Your task to perform on an android device: toggle translation in the chrome app Image 0: 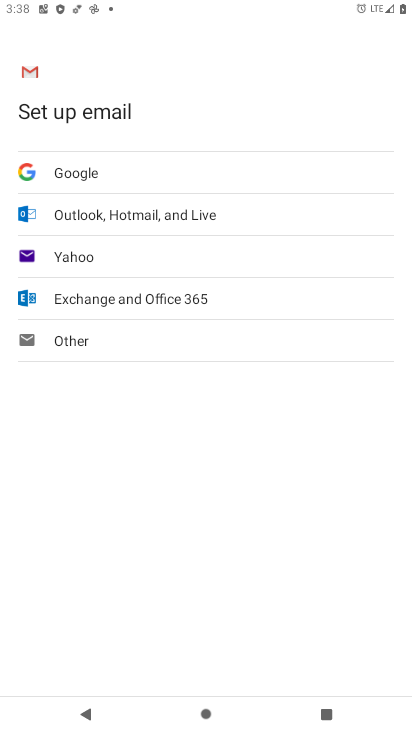
Step 0: press home button
Your task to perform on an android device: toggle translation in the chrome app Image 1: 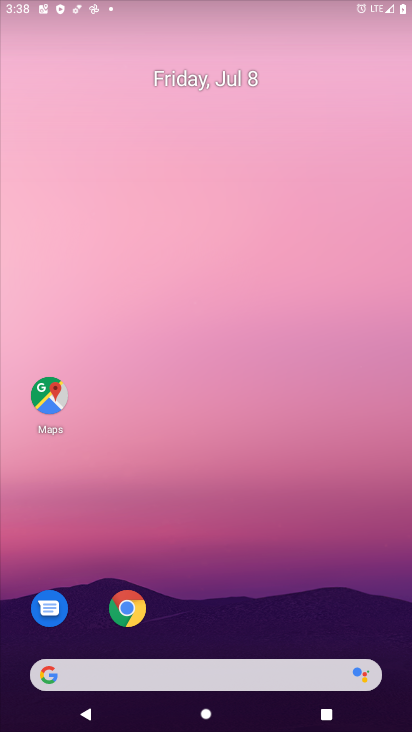
Step 1: drag from (315, 683) to (407, 607)
Your task to perform on an android device: toggle translation in the chrome app Image 2: 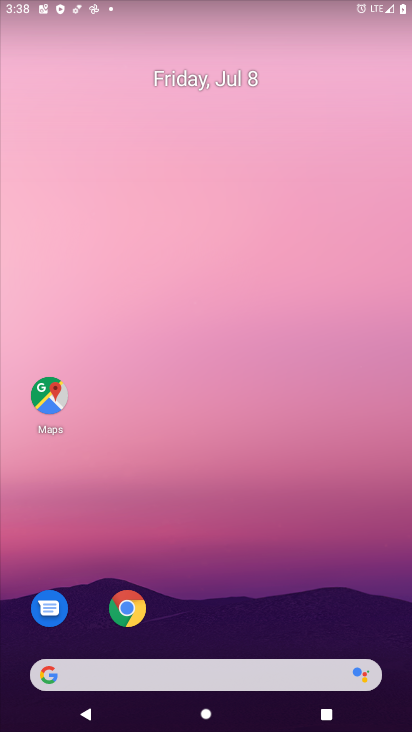
Step 2: drag from (225, 663) to (252, 40)
Your task to perform on an android device: toggle translation in the chrome app Image 3: 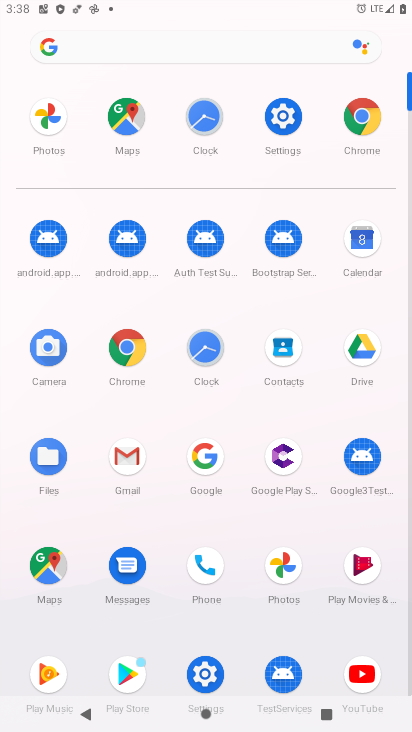
Step 3: click (138, 344)
Your task to perform on an android device: toggle translation in the chrome app Image 4: 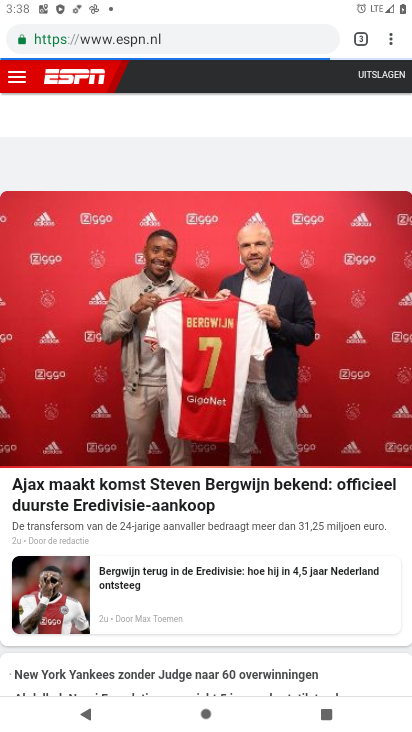
Step 4: drag from (393, 33) to (272, 430)
Your task to perform on an android device: toggle translation in the chrome app Image 5: 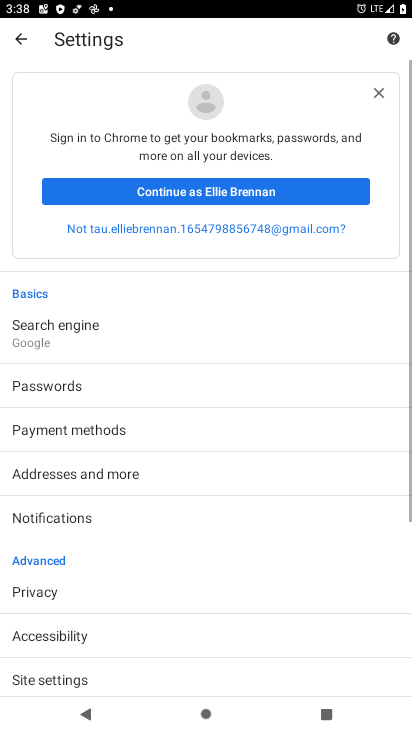
Step 5: drag from (129, 654) to (159, 213)
Your task to perform on an android device: toggle translation in the chrome app Image 6: 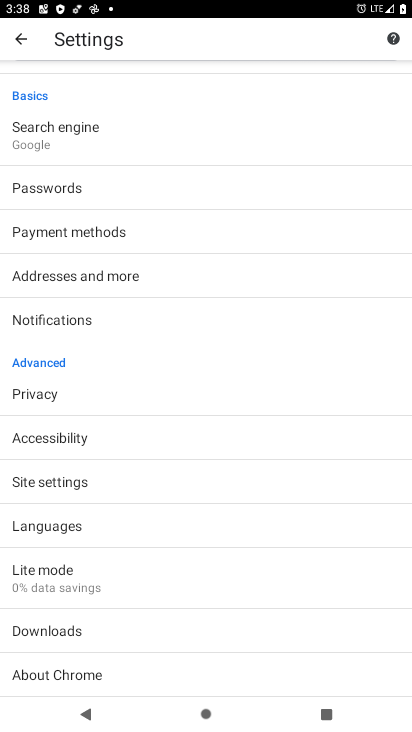
Step 6: click (72, 531)
Your task to perform on an android device: toggle translation in the chrome app Image 7: 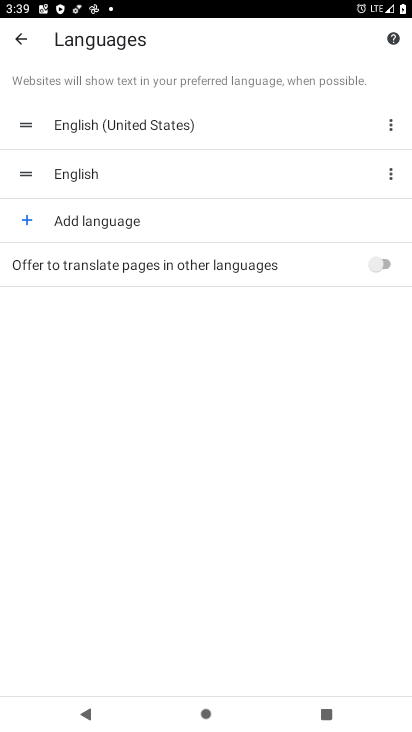
Step 7: click (384, 261)
Your task to perform on an android device: toggle translation in the chrome app Image 8: 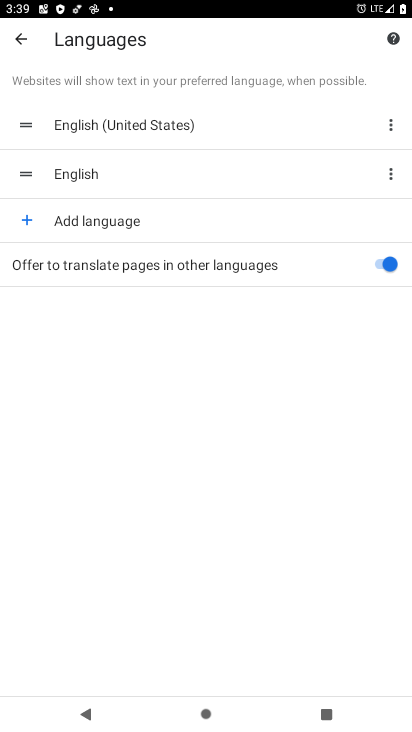
Step 8: task complete